Your task to perform on an android device: turn off improve location accuracy Image 0: 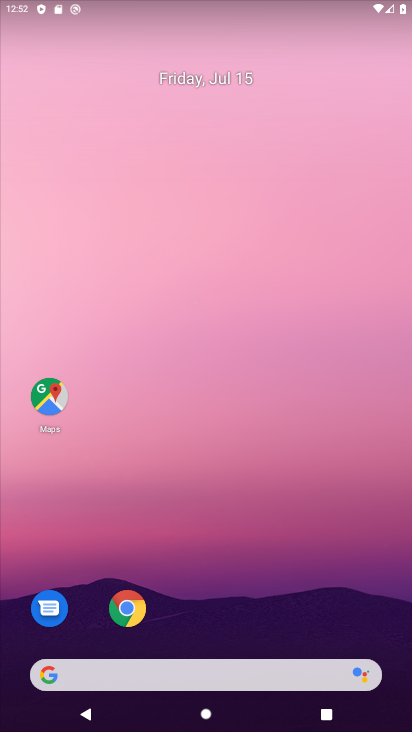
Step 0: drag from (192, 638) to (292, 239)
Your task to perform on an android device: turn off improve location accuracy Image 1: 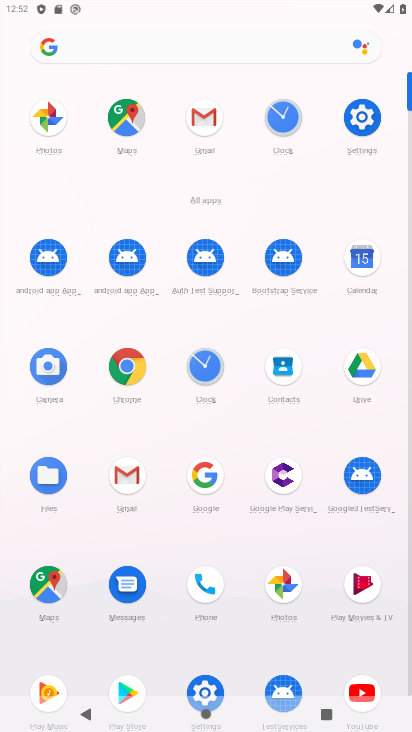
Step 1: click (349, 107)
Your task to perform on an android device: turn off improve location accuracy Image 2: 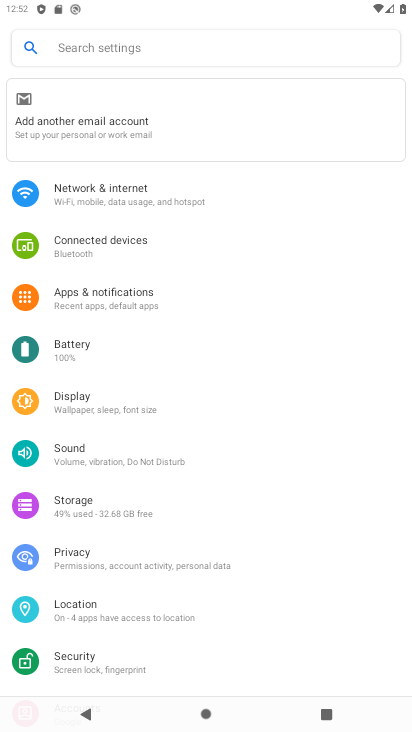
Step 2: drag from (128, 606) to (159, 292)
Your task to perform on an android device: turn off improve location accuracy Image 3: 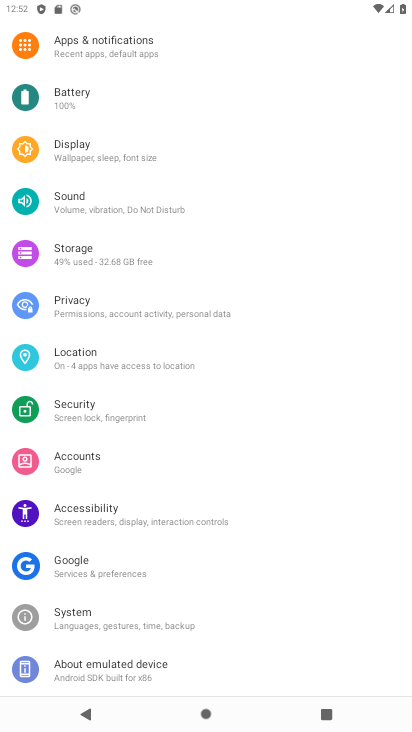
Step 3: drag from (189, 605) to (193, 388)
Your task to perform on an android device: turn off improve location accuracy Image 4: 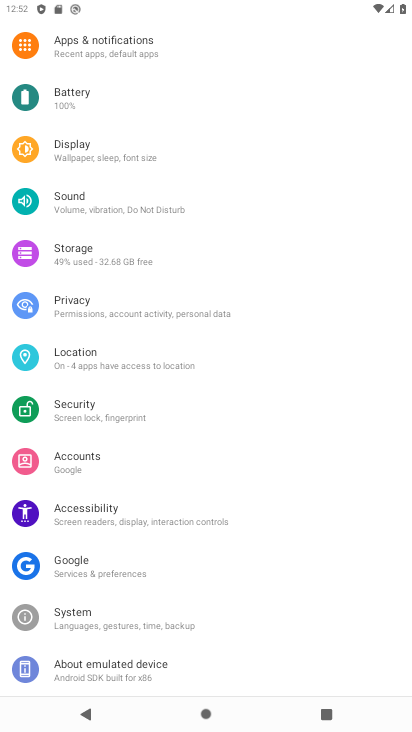
Step 4: click (139, 356)
Your task to perform on an android device: turn off improve location accuracy Image 5: 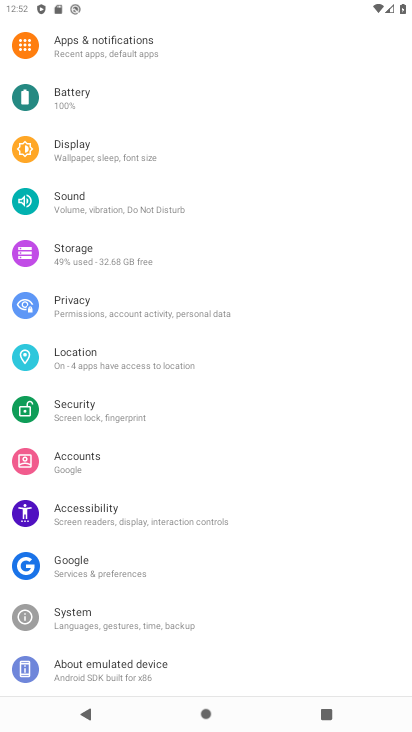
Step 5: click (141, 356)
Your task to perform on an android device: turn off improve location accuracy Image 6: 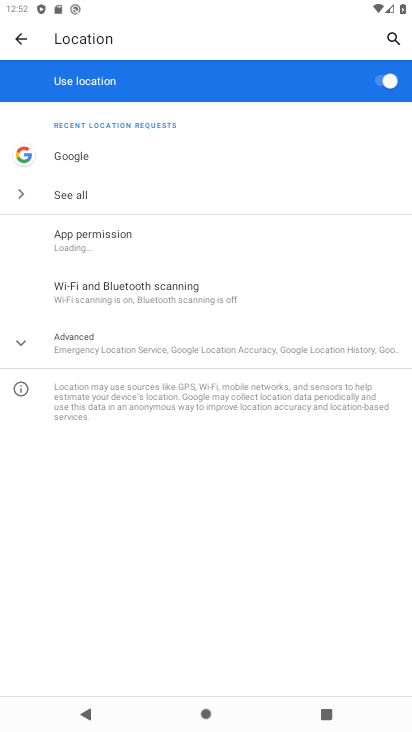
Step 6: click (105, 322)
Your task to perform on an android device: turn off improve location accuracy Image 7: 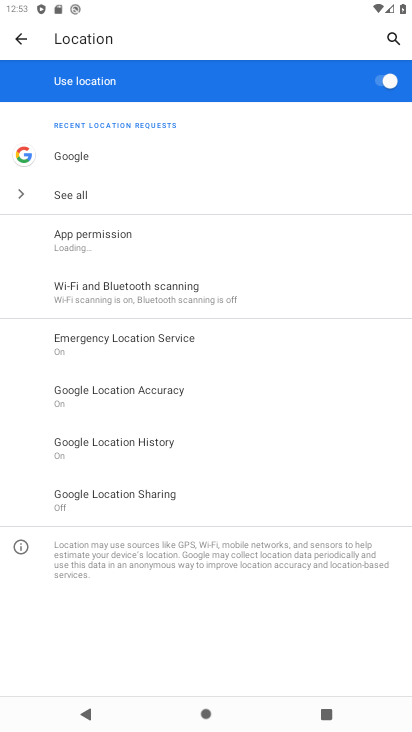
Step 7: drag from (214, 441) to (239, 319)
Your task to perform on an android device: turn off improve location accuracy Image 8: 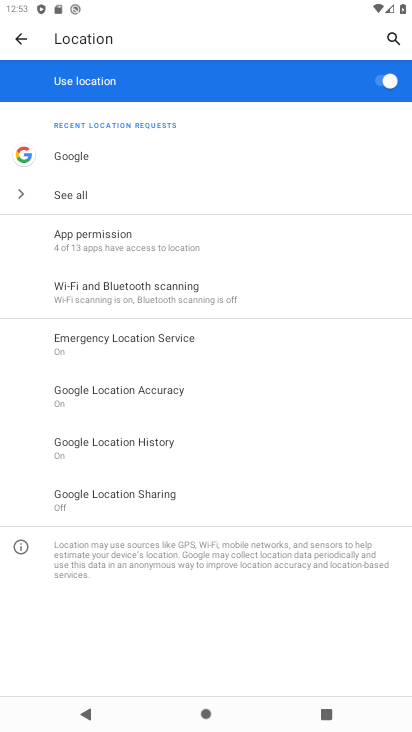
Step 8: click (156, 383)
Your task to perform on an android device: turn off improve location accuracy Image 9: 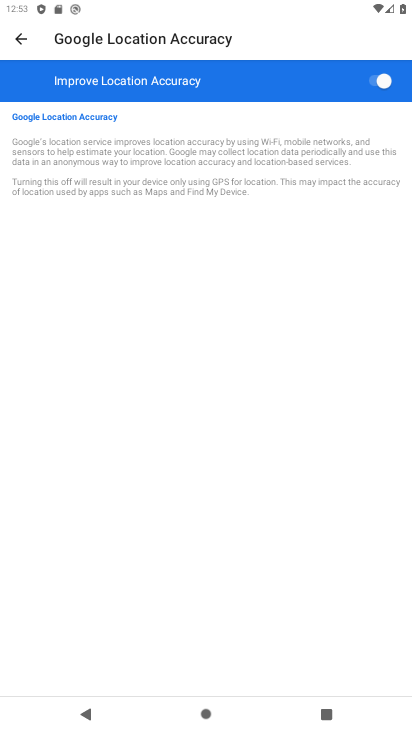
Step 9: click (376, 83)
Your task to perform on an android device: turn off improve location accuracy Image 10: 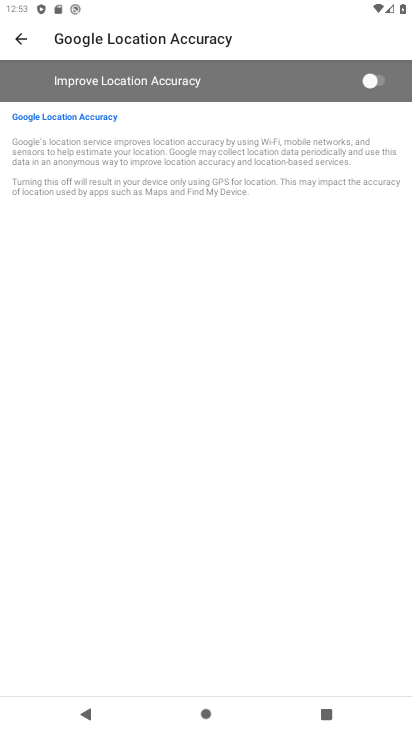
Step 10: task complete